Your task to perform on an android device: Show me the alarms in the clock app Image 0: 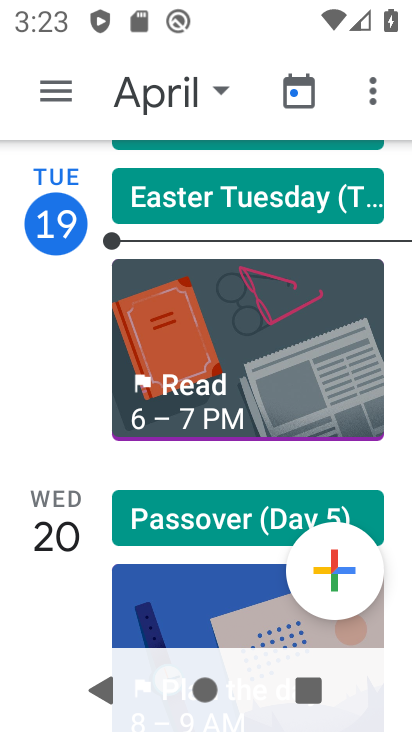
Step 0: press home button
Your task to perform on an android device: Show me the alarms in the clock app Image 1: 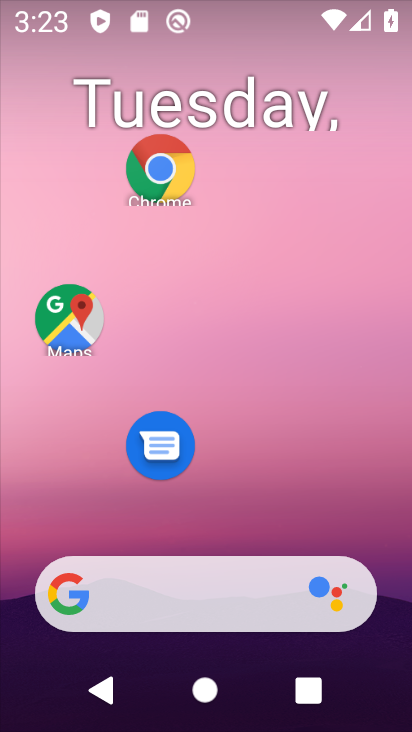
Step 1: drag from (219, 526) to (267, 14)
Your task to perform on an android device: Show me the alarms in the clock app Image 2: 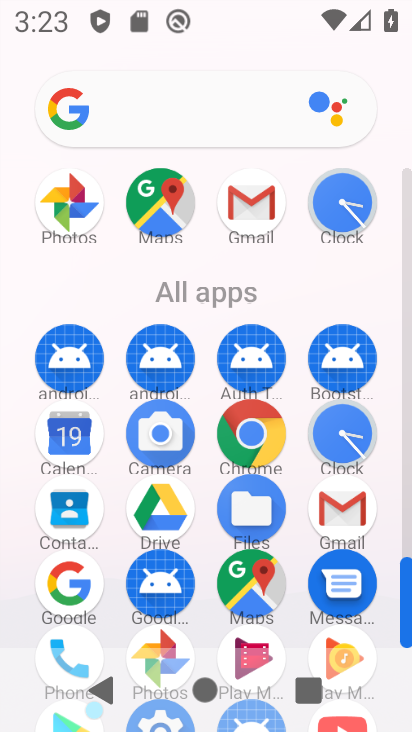
Step 2: click (338, 208)
Your task to perform on an android device: Show me the alarms in the clock app Image 3: 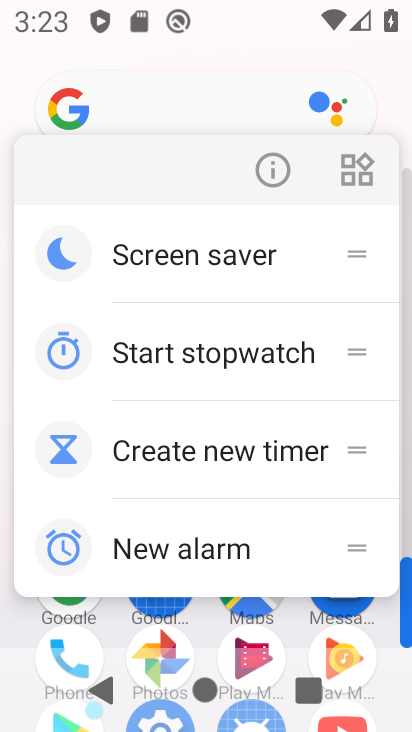
Step 3: click (398, 97)
Your task to perform on an android device: Show me the alarms in the clock app Image 4: 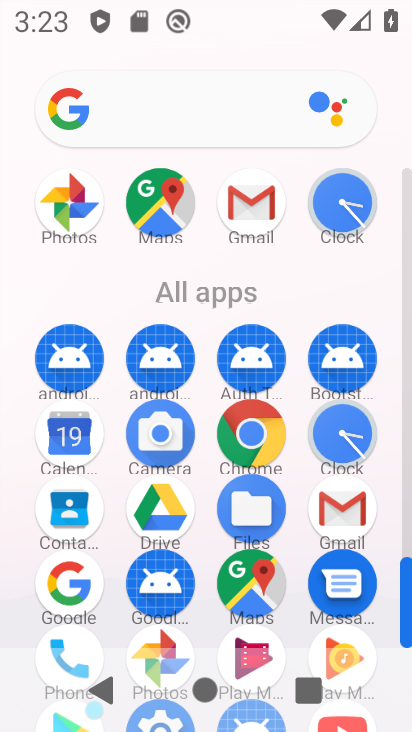
Step 4: click (322, 207)
Your task to perform on an android device: Show me the alarms in the clock app Image 5: 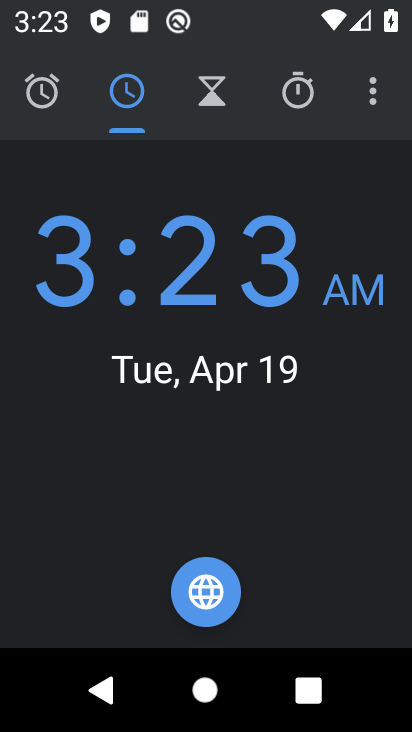
Step 5: click (39, 99)
Your task to perform on an android device: Show me the alarms in the clock app Image 6: 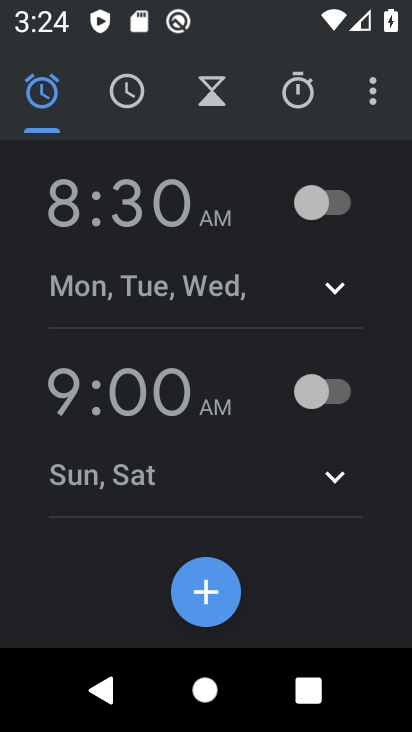
Step 6: task complete